Your task to perform on an android device: Go to sound settings Image 0: 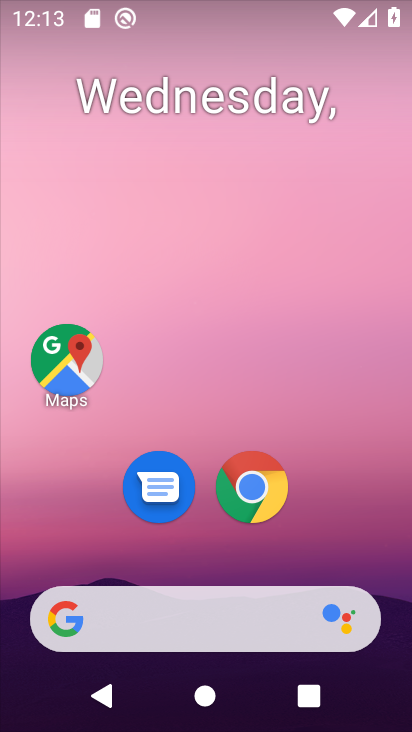
Step 0: drag from (215, 143) to (229, 49)
Your task to perform on an android device: Go to sound settings Image 1: 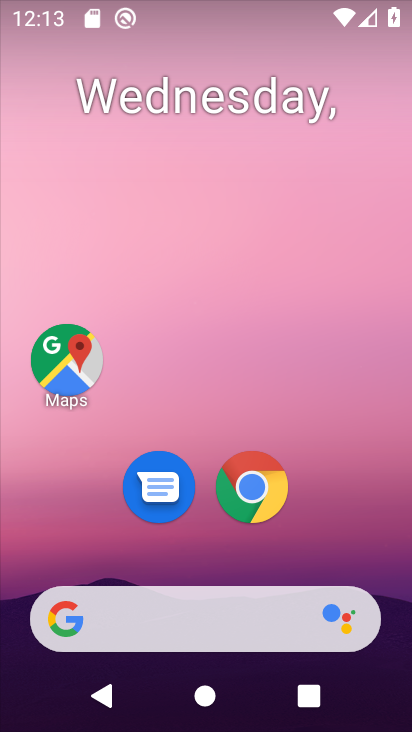
Step 1: drag from (198, 513) to (227, 3)
Your task to perform on an android device: Go to sound settings Image 2: 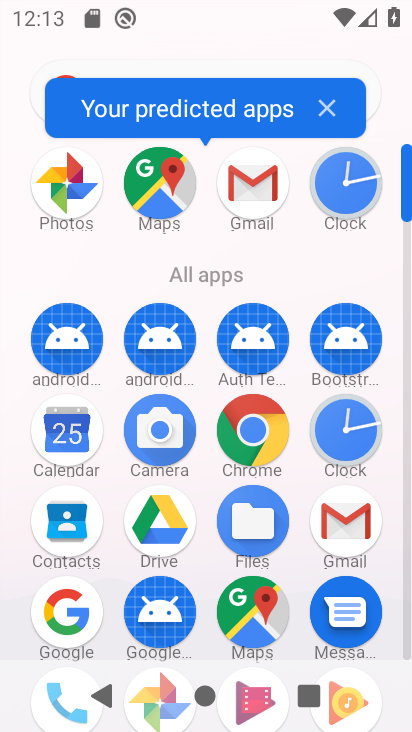
Step 2: drag from (171, 540) to (233, 94)
Your task to perform on an android device: Go to sound settings Image 3: 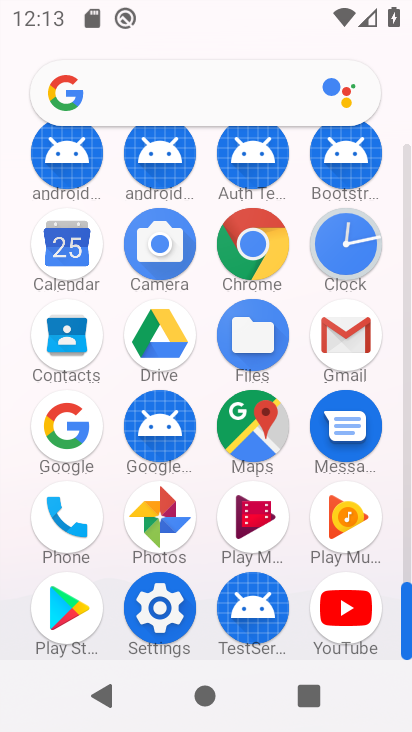
Step 3: click (148, 615)
Your task to perform on an android device: Go to sound settings Image 4: 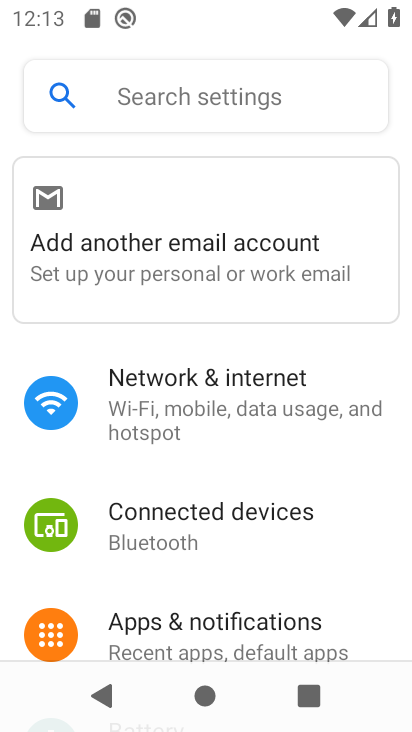
Step 4: drag from (209, 633) to (290, 144)
Your task to perform on an android device: Go to sound settings Image 5: 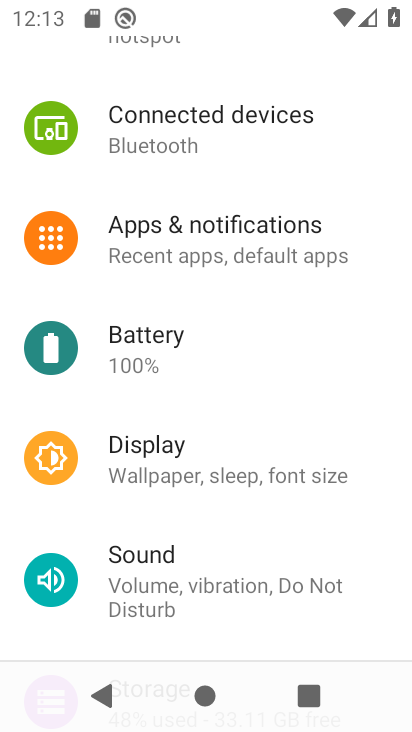
Step 5: click (168, 585)
Your task to perform on an android device: Go to sound settings Image 6: 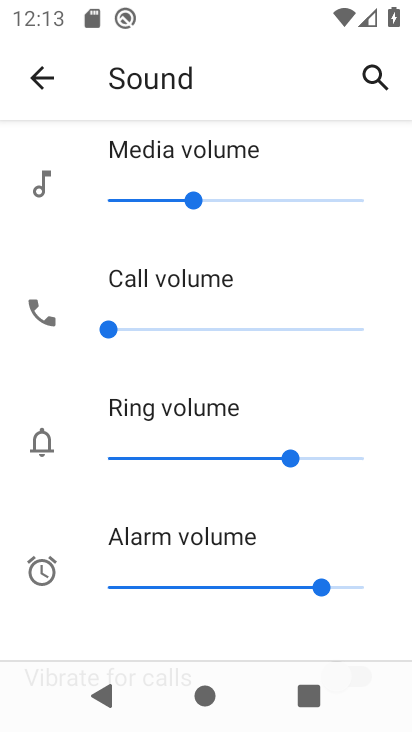
Step 6: task complete